Your task to perform on an android device: Go to CNN.com Image 0: 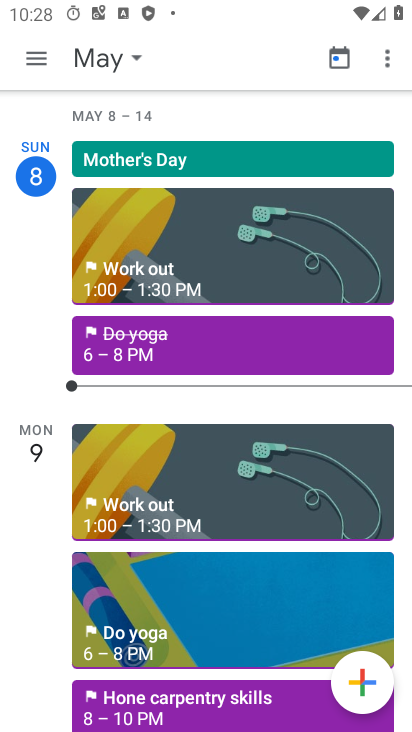
Step 0: drag from (253, 594) to (301, 119)
Your task to perform on an android device: Go to CNN.com Image 1: 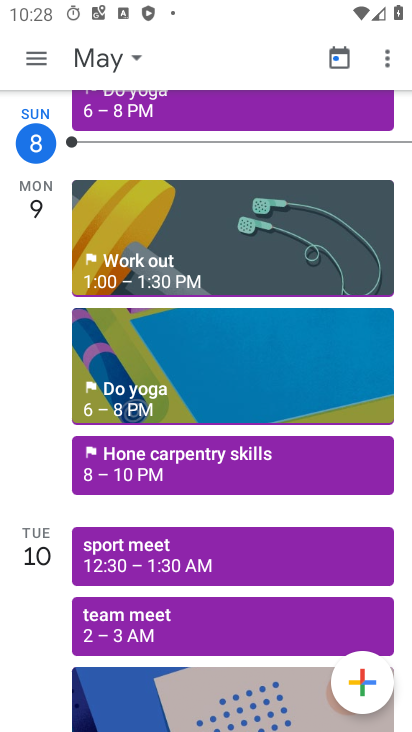
Step 1: press home button
Your task to perform on an android device: Go to CNN.com Image 2: 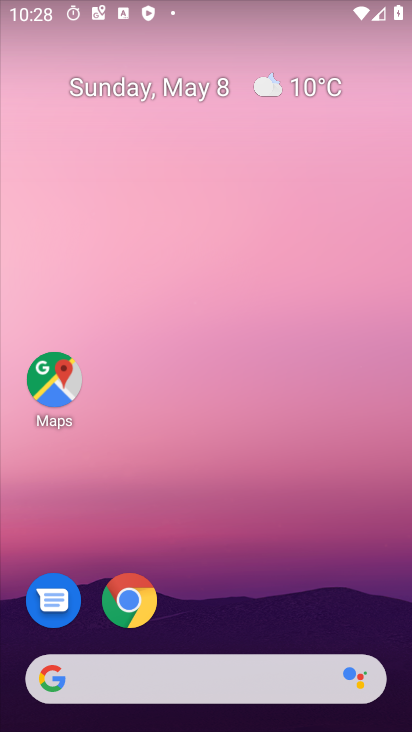
Step 2: click (147, 613)
Your task to perform on an android device: Go to CNN.com Image 3: 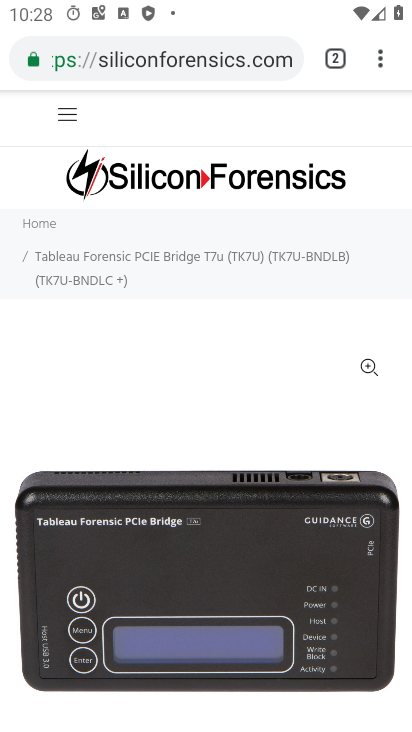
Step 3: click (272, 54)
Your task to perform on an android device: Go to CNN.com Image 4: 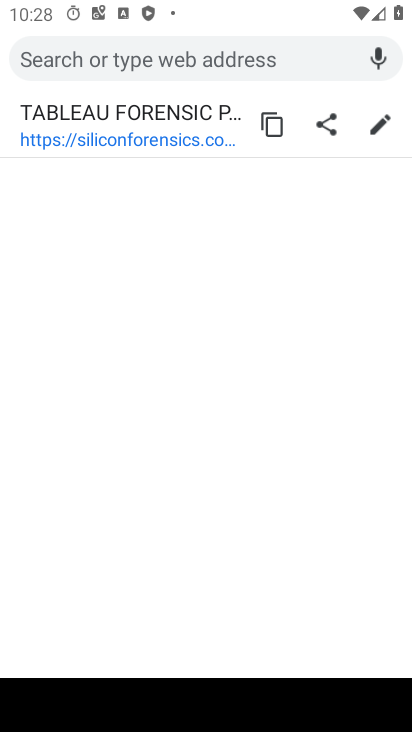
Step 4: type "cnn.com"
Your task to perform on an android device: Go to CNN.com Image 5: 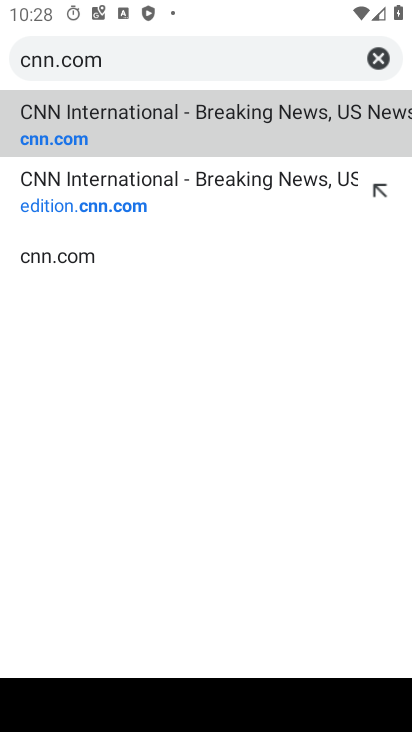
Step 5: click (224, 127)
Your task to perform on an android device: Go to CNN.com Image 6: 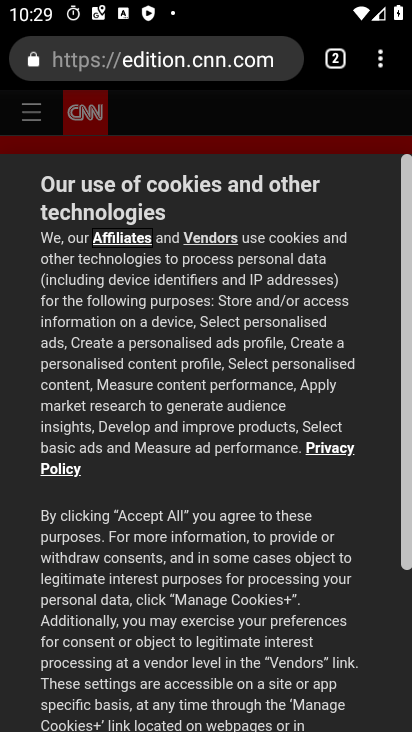
Step 6: task complete